Your task to perform on an android device: Show me productivity apps on the Play Store Image 0: 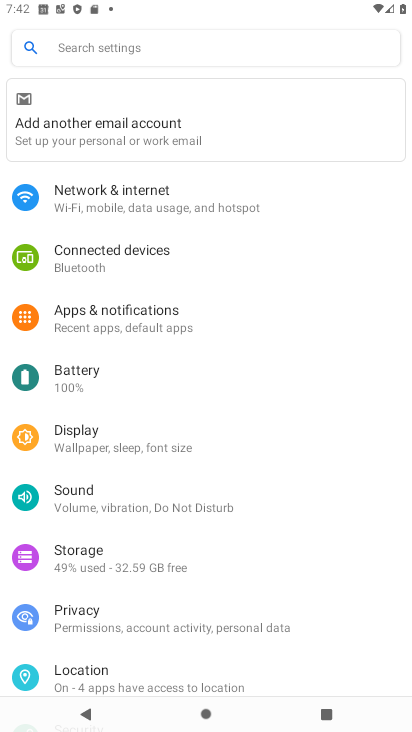
Step 0: press home button
Your task to perform on an android device: Show me productivity apps on the Play Store Image 1: 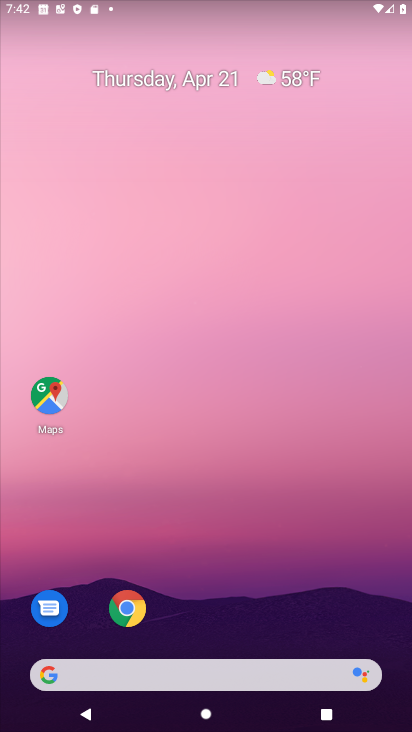
Step 1: drag from (222, 620) to (299, 138)
Your task to perform on an android device: Show me productivity apps on the Play Store Image 2: 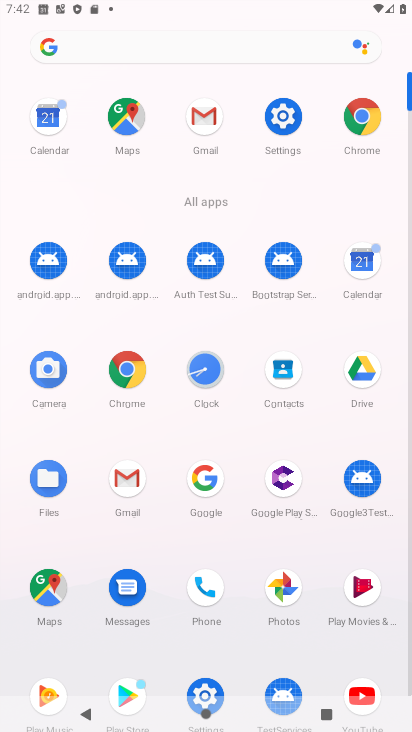
Step 2: drag from (159, 541) to (168, 386)
Your task to perform on an android device: Show me productivity apps on the Play Store Image 3: 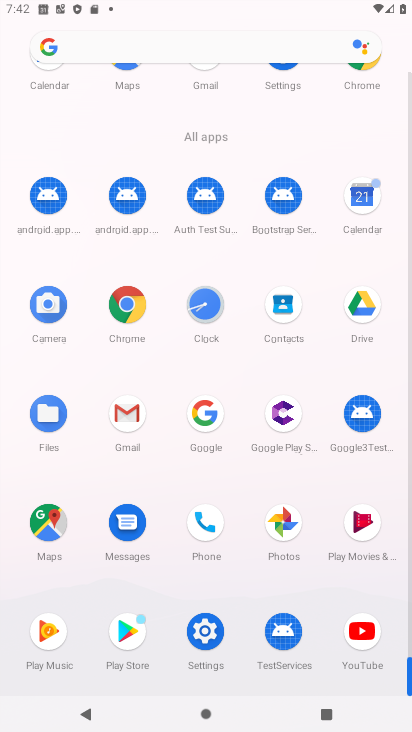
Step 3: click (130, 627)
Your task to perform on an android device: Show me productivity apps on the Play Store Image 4: 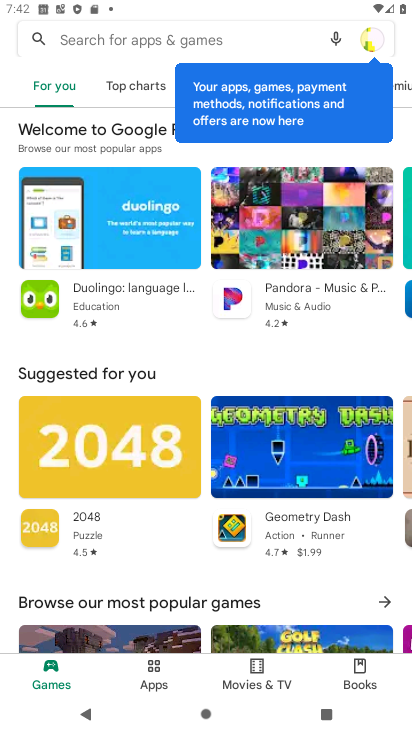
Step 4: click (134, 33)
Your task to perform on an android device: Show me productivity apps on the Play Store Image 5: 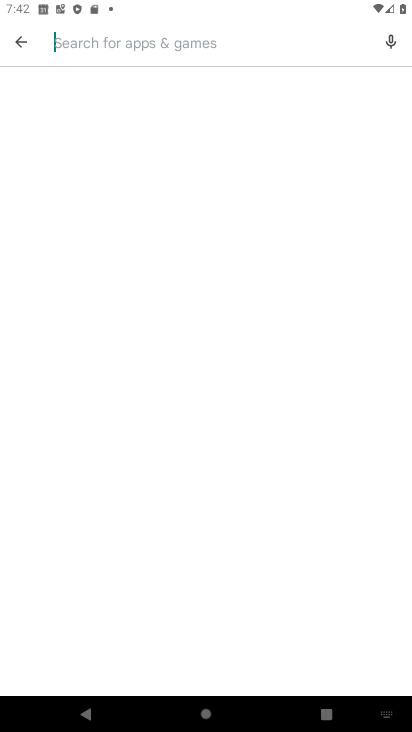
Step 5: type "productivity apps"
Your task to perform on an android device: Show me productivity apps on the Play Store Image 6: 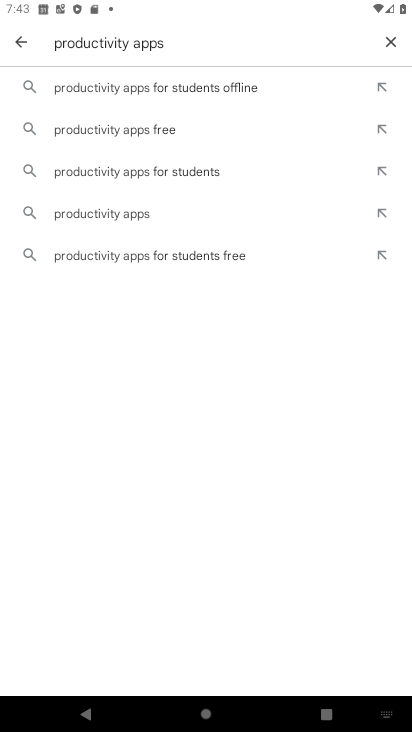
Step 6: click (137, 208)
Your task to perform on an android device: Show me productivity apps on the Play Store Image 7: 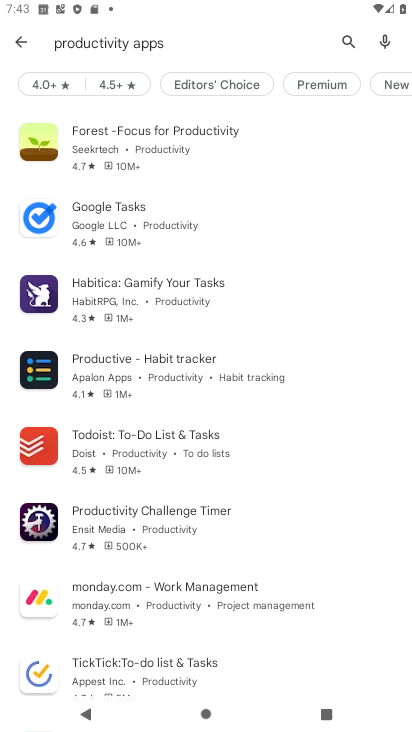
Step 7: task complete